Your task to perform on an android device: Search for Mexican restaurants on Maps Image 0: 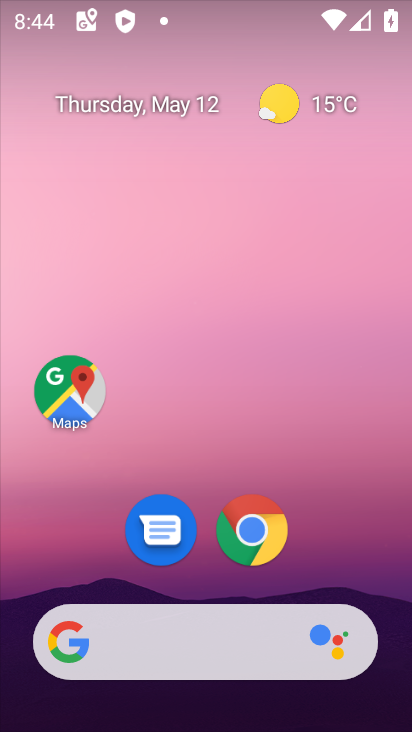
Step 0: click (84, 384)
Your task to perform on an android device: Search for Mexican restaurants on Maps Image 1: 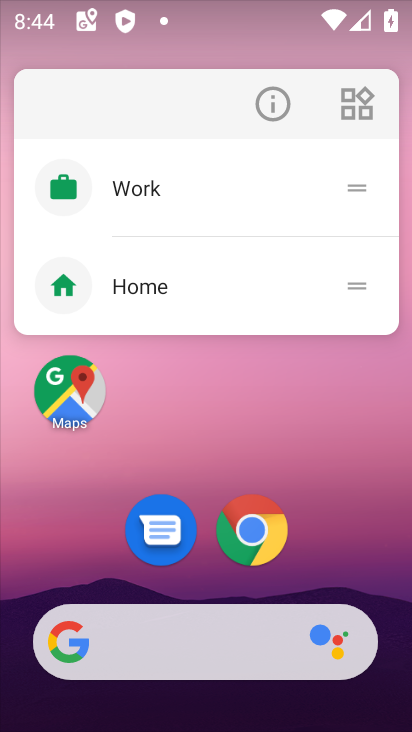
Step 1: click (60, 376)
Your task to perform on an android device: Search for Mexican restaurants on Maps Image 2: 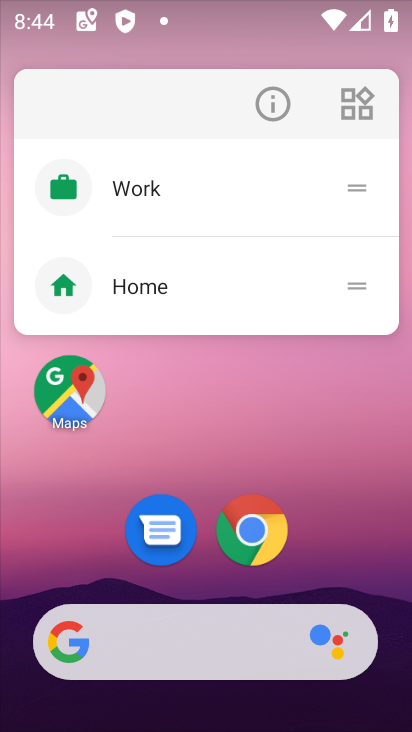
Step 2: click (60, 376)
Your task to perform on an android device: Search for Mexican restaurants on Maps Image 3: 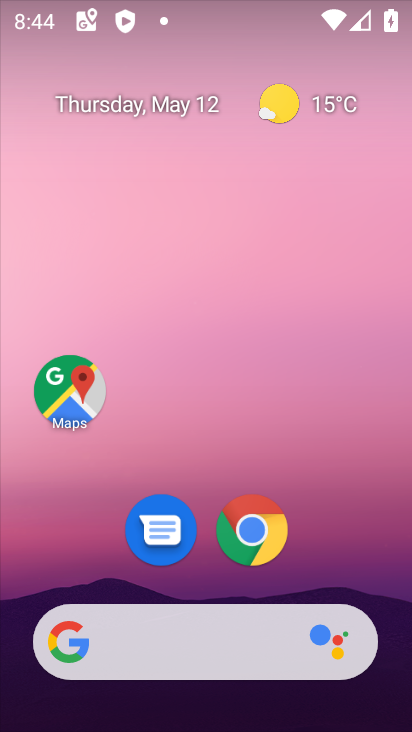
Step 3: click (60, 376)
Your task to perform on an android device: Search for Mexican restaurants on Maps Image 4: 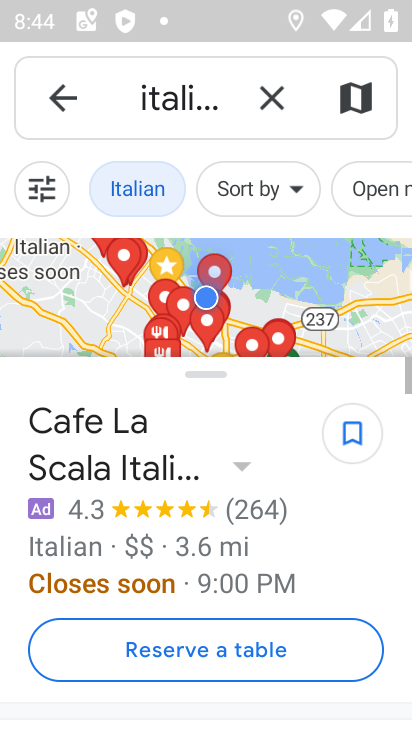
Step 4: click (277, 93)
Your task to perform on an android device: Search for Mexican restaurants on Maps Image 5: 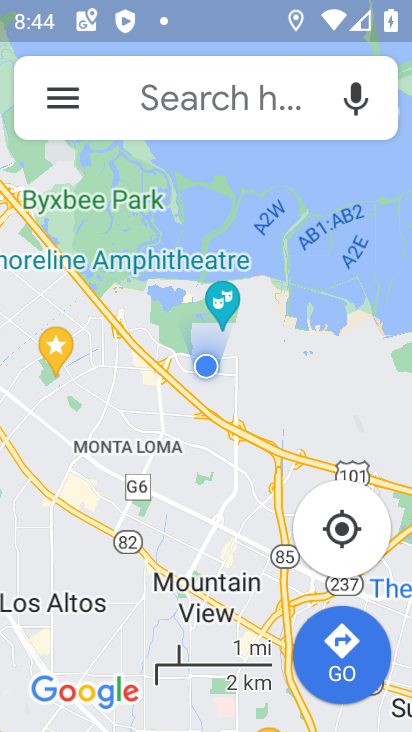
Step 5: click (211, 88)
Your task to perform on an android device: Search for Mexican restaurants on Maps Image 6: 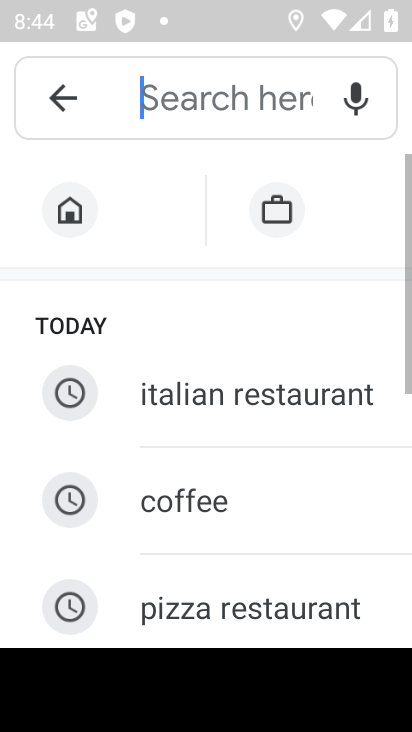
Step 6: drag from (251, 563) to (129, 81)
Your task to perform on an android device: Search for Mexican restaurants on Maps Image 7: 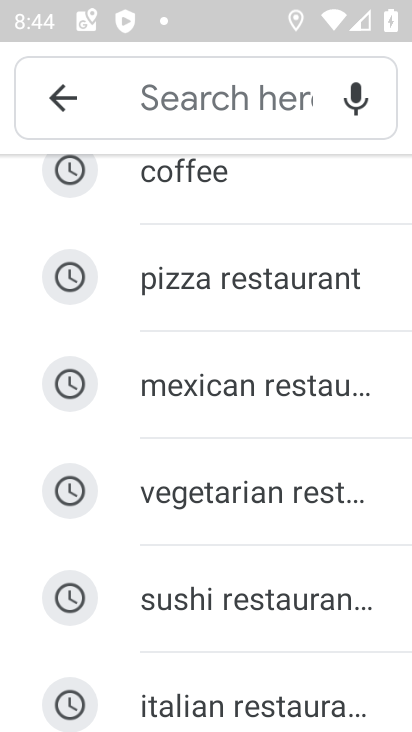
Step 7: click (290, 369)
Your task to perform on an android device: Search for Mexican restaurants on Maps Image 8: 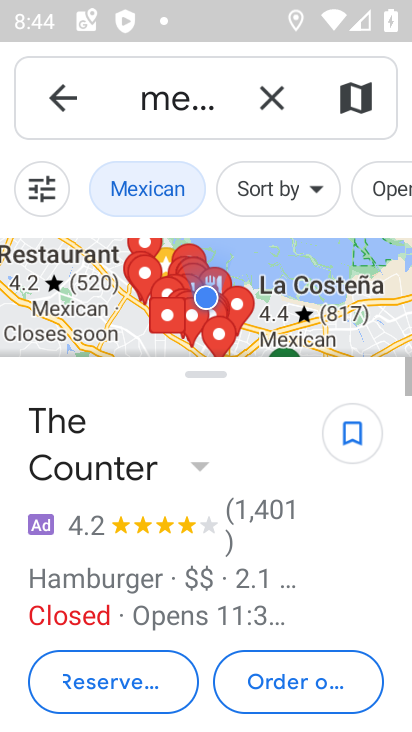
Step 8: task complete